Your task to perform on an android device: What's the weather going to be tomorrow? Image 0: 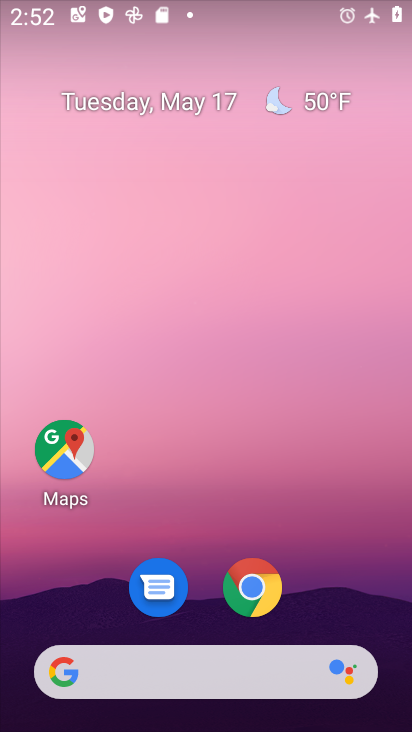
Step 0: drag from (322, 594) to (276, 136)
Your task to perform on an android device: What's the weather going to be tomorrow? Image 1: 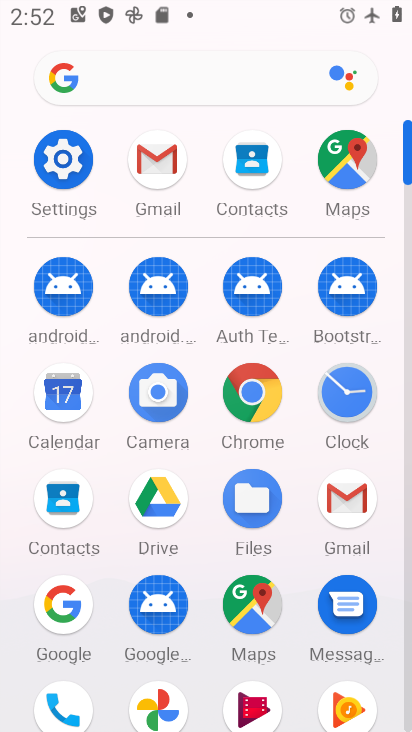
Step 1: click (220, 65)
Your task to perform on an android device: What's the weather going to be tomorrow? Image 2: 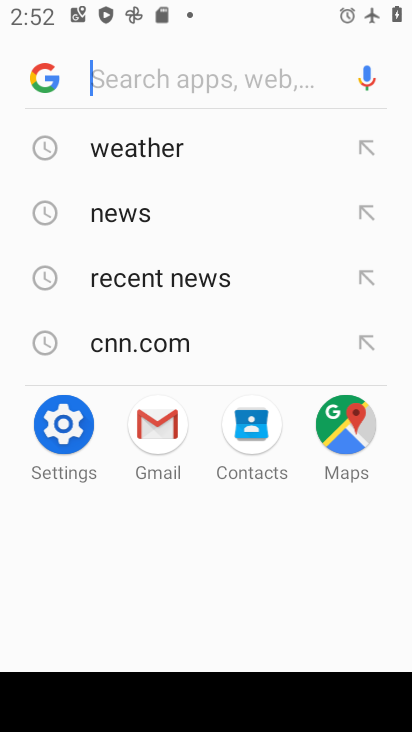
Step 2: click (167, 134)
Your task to perform on an android device: What's the weather going to be tomorrow? Image 3: 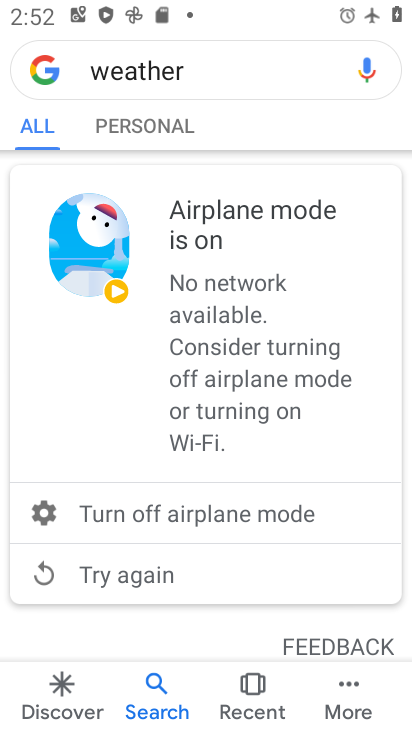
Step 3: task complete